Your task to perform on an android device: change keyboard looks Image 0: 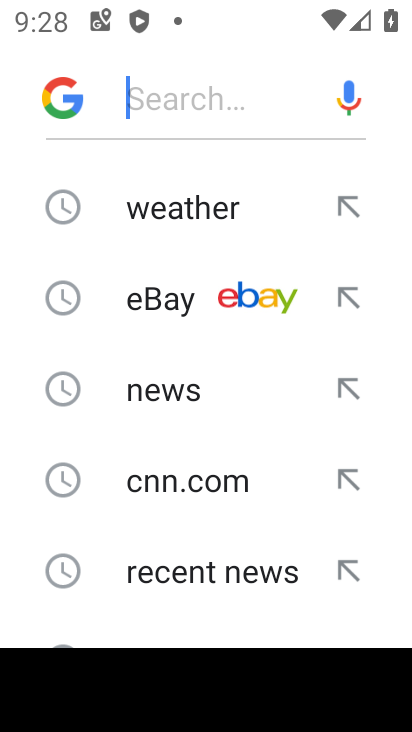
Step 0: press home button
Your task to perform on an android device: change keyboard looks Image 1: 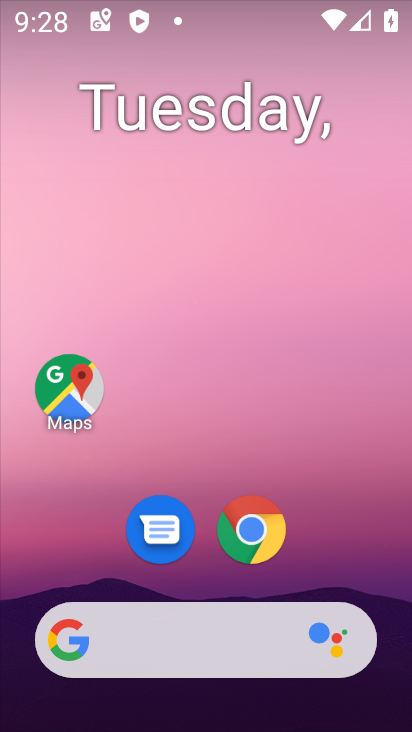
Step 1: drag from (277, 623) to (359, 93)
Your task to perform on an android device: change keyboard looks Image 2: 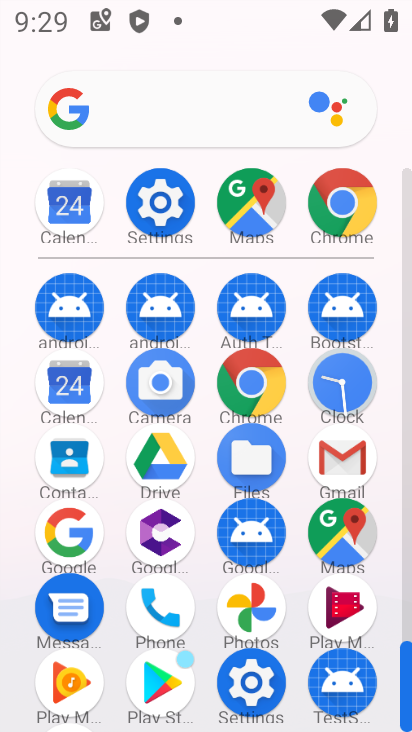
Step 2: click (178, 222)
Your task to perform on an android device: change keyboard looks Image 3: 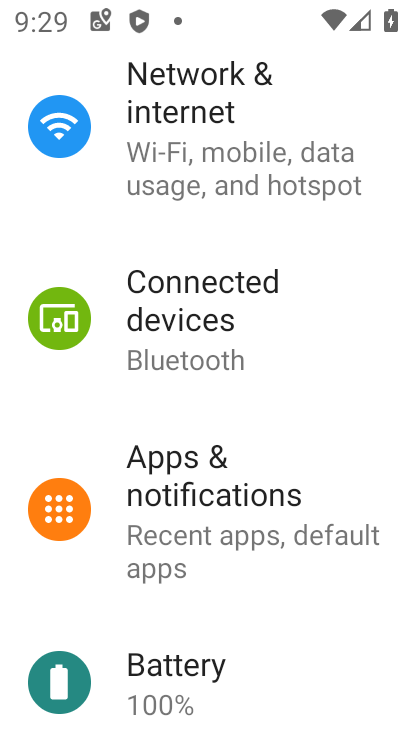
Step 3: drag from (200, 223) to (216, 707)
Your task to perform on an android device: change keyboard looks Image 4: 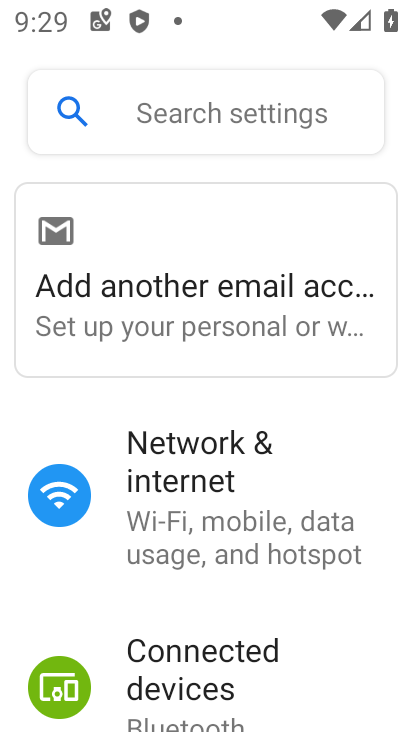
Step 4: drag from (234, 523) to (263, 168)
Your task to perform on an android device: change keyboard looks Image 5: 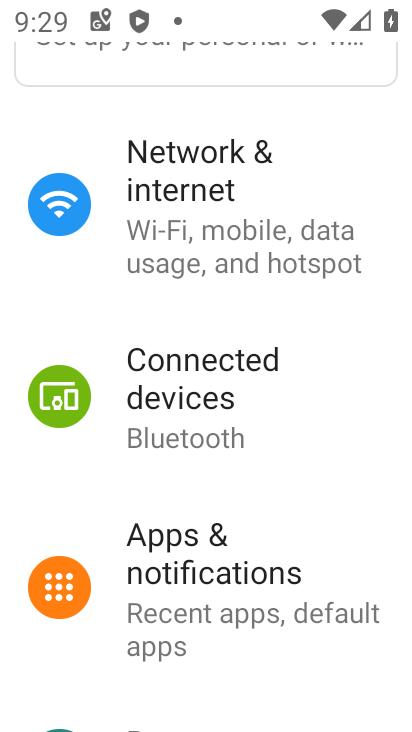
Step 5: drag from (183, 555) to (193, 331)
Your task to perform on an android device: change keyboard looks Image 6: 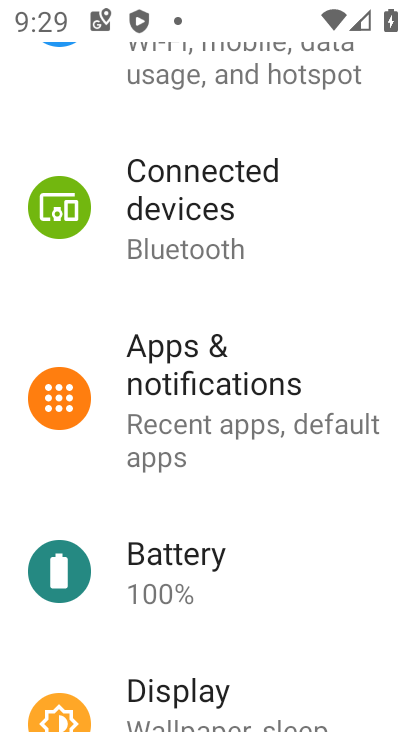
Step 6: drag from (228, 589) to (254, 374)
Your task to perform on an android device: change keyboard looks Image 7: 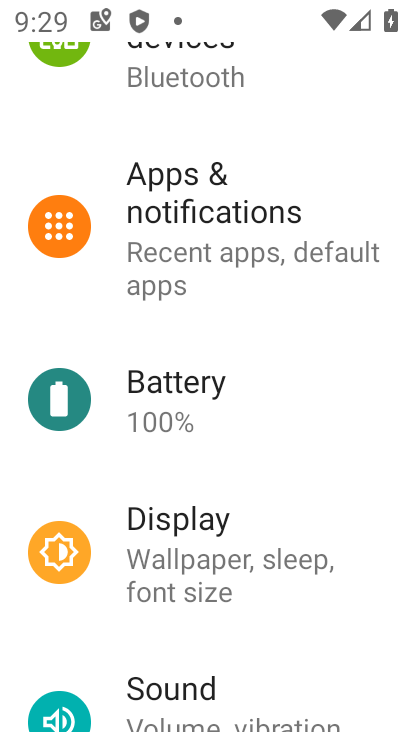
Step 7: click (229, 538)
Your task to perform on an android device: change keyboard looks Image 8: 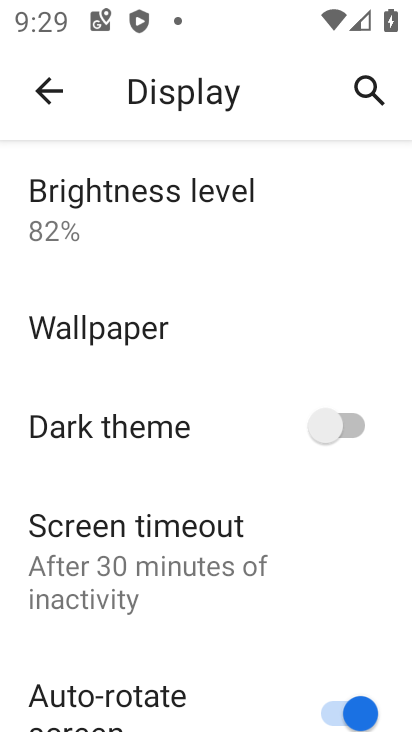
Step 8: drag from (164, 537) to (191, 276)
Your task to perform on an android device: change keyboard looks Image 9: 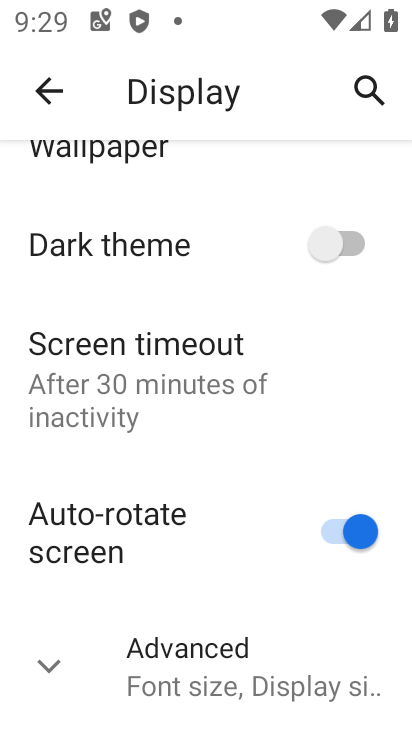
Step 9: click (219, 688)
Your task to perform on an android device: change keyboard looks Image 10: 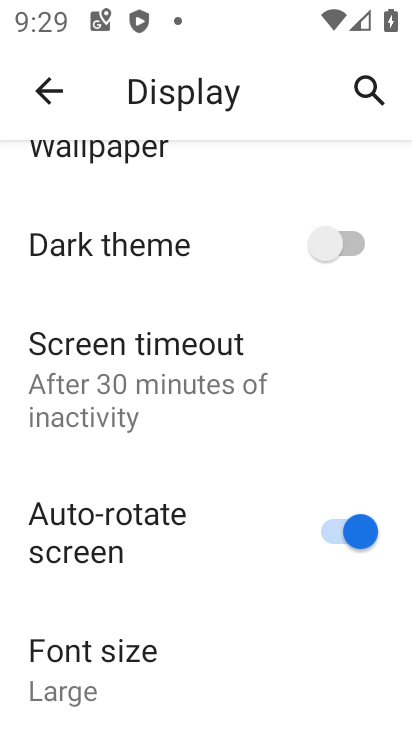
Step 10: drag from (128, 560) to (138, 375)
Your task to perform on an android device: change keyboard looks Image 11: 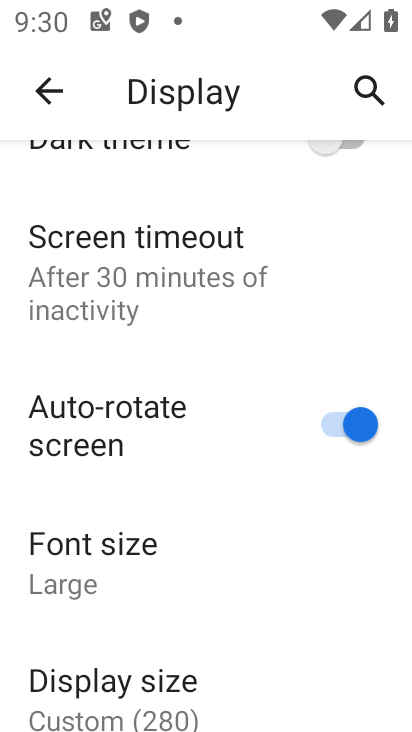
Step 11: drag from (135, 574) to (173, 330)
Your task to perform on an android device: change keyboard looks Image 12: 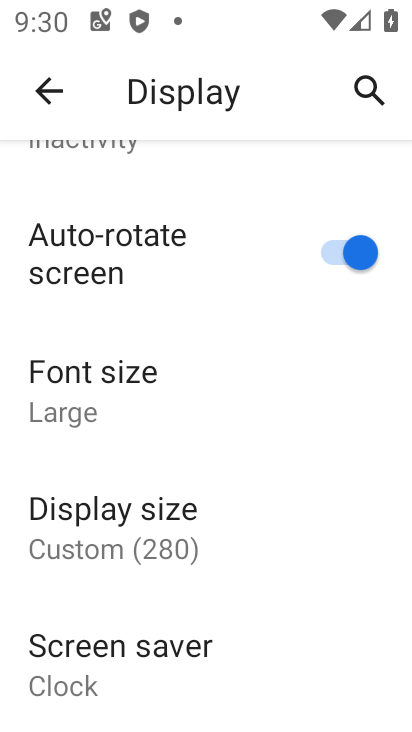
Step 12: drag from (214, 580) to (247, 223)
Your task to perform on an android device: change keyboard looks Image 13: 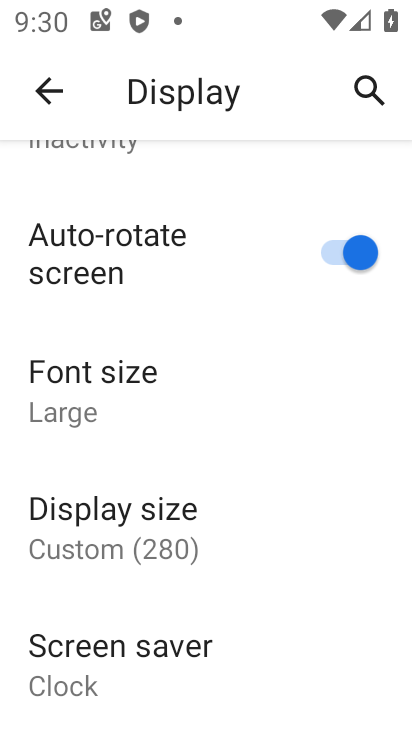
Step 13: click (161, 418)
Your task to perform on an android device: change keyboard looks Image 14: 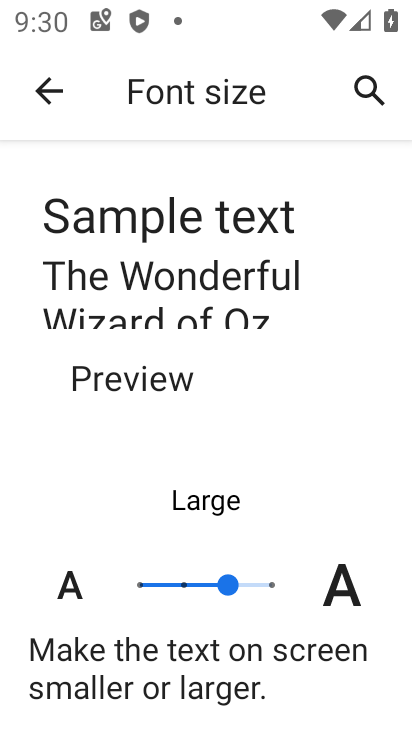
Step 14: click (190, 584)
Your task to perform on an android device: change keyboard looks Image 15: 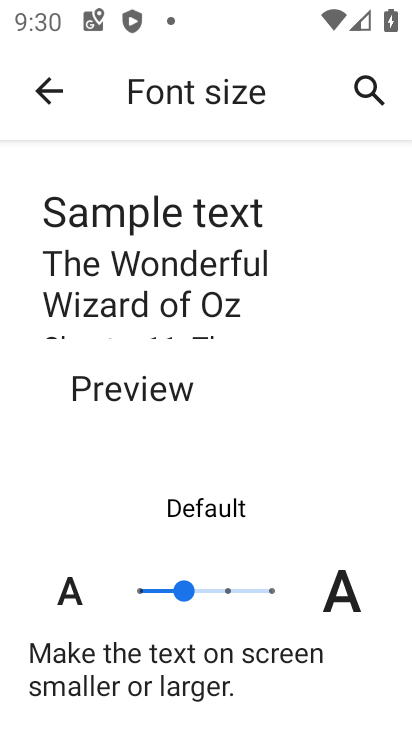
Step 15: task complete